Your task to perform on an android device: Is it going to rain tomorrow? Image 0: 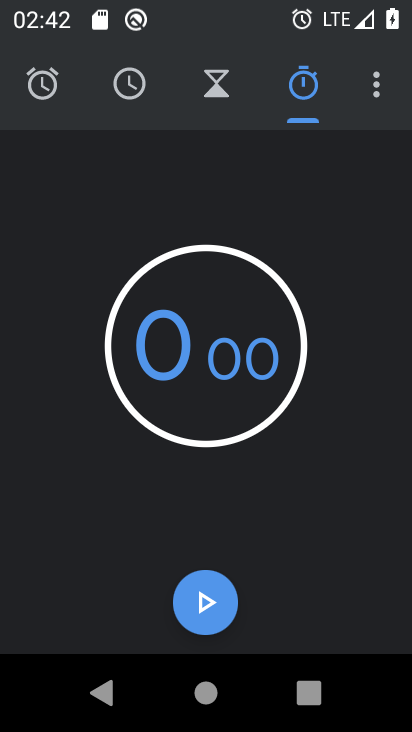
Step 0: press home button
Your task to perform on an android device: Is it going to rain tomorrow? Image 1: 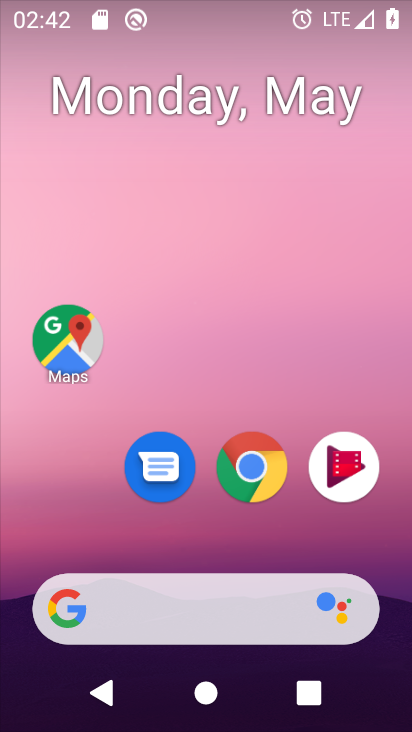
Step 1: click (250, 447)
Your task to perform on an android device: Is it going to rain tomorrow? Image 2: 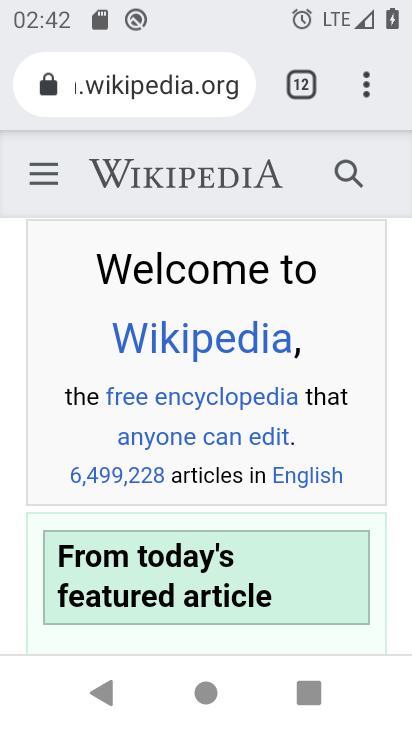
Step 2: click (342, 80)
Your task to perform on an android device: Is it going to rain tomorrow? Image 3: 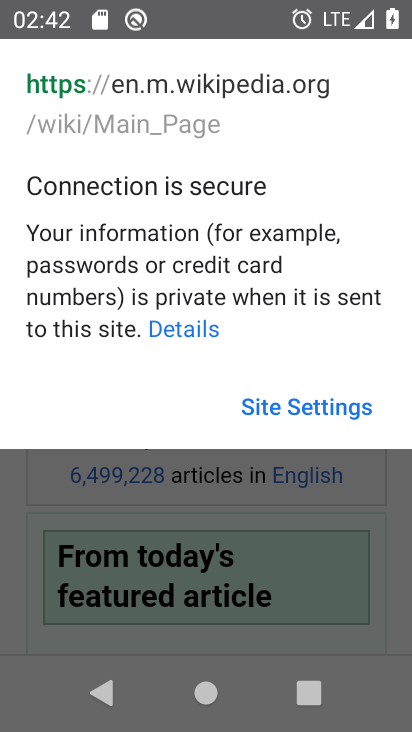
Step 3: press back button
Your task to perform on an android device: Is it going to rain tomorrow? Image 4: 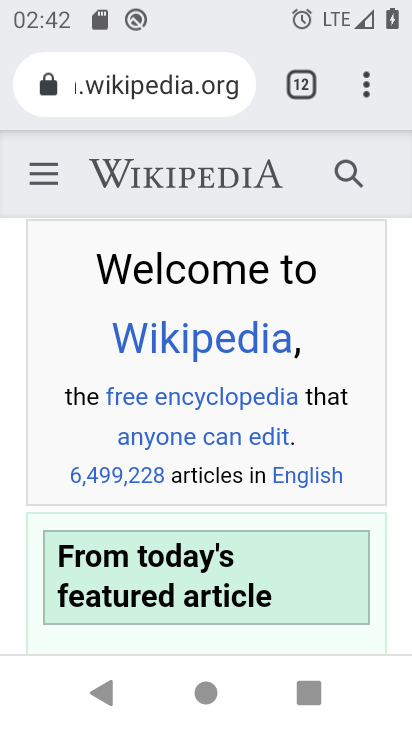
Step 4: click (365, 93)
Your task to perform on an android device: Is it going to rain tomorrow? Image 5: 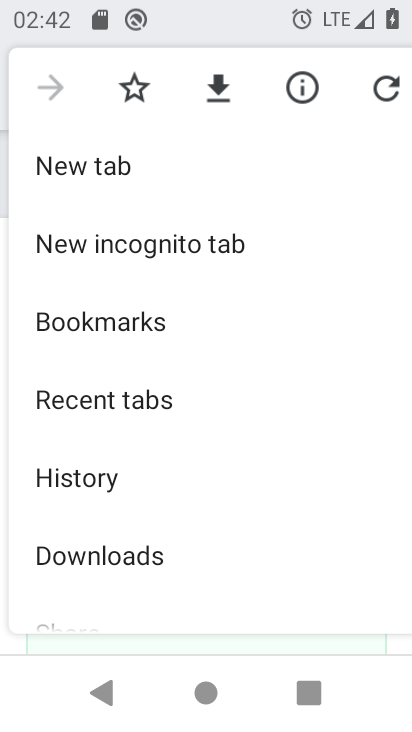
Step 5: click (134, 149)
Your task to perform on an android device: Is it going to rain tomorrow? Image 6: 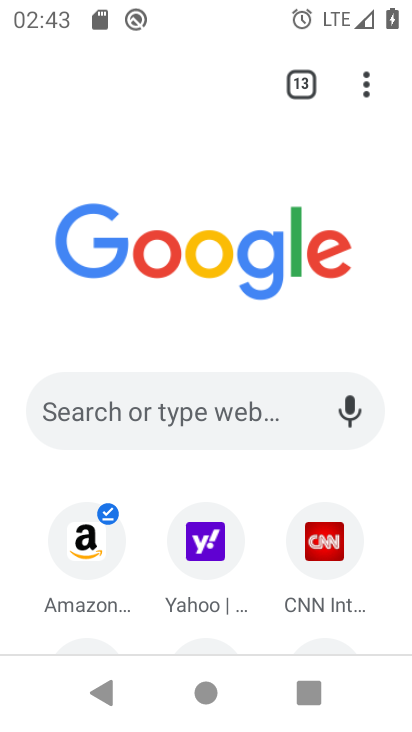
Step 6: click (209, 418)
Your task to perform on an android device: Is it going to rain tomorrow? Image 7: 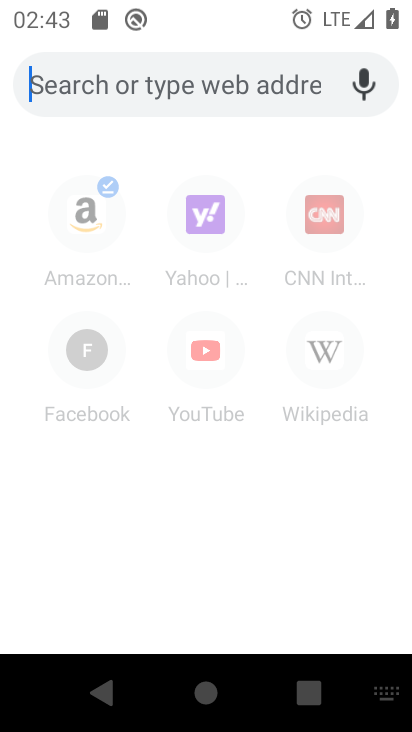
Step 7: type "Is it going to rain tomorrow?"
Your task to perform on an android device: Is it going to rain tomorrow? Image 8: 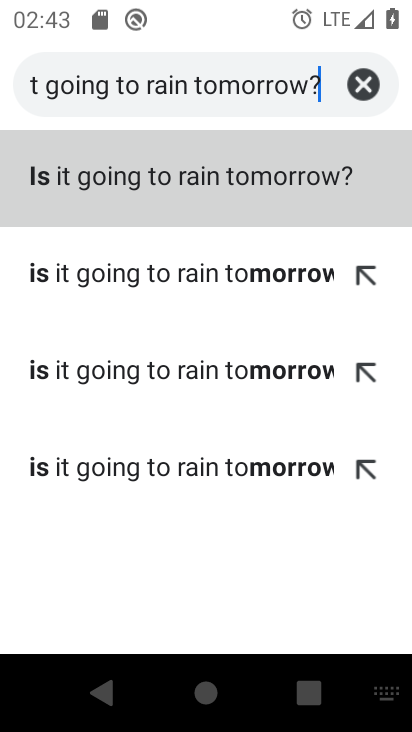
Step 8: click (313, 177)
Your task to perform on an android device: Is it going to rain tomorrow? Image 9: 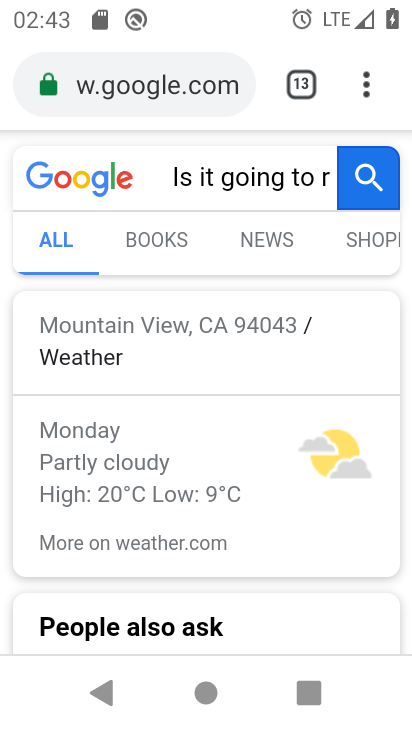
Step 9: task complete